Your task to perform on an android device: toggle wifi Image 0: 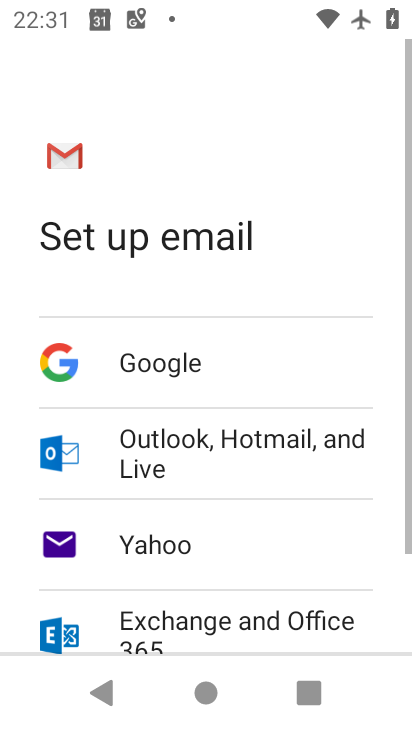
Step 0: press home button
Your task to perform on an android device: toggle wifi Image 1: 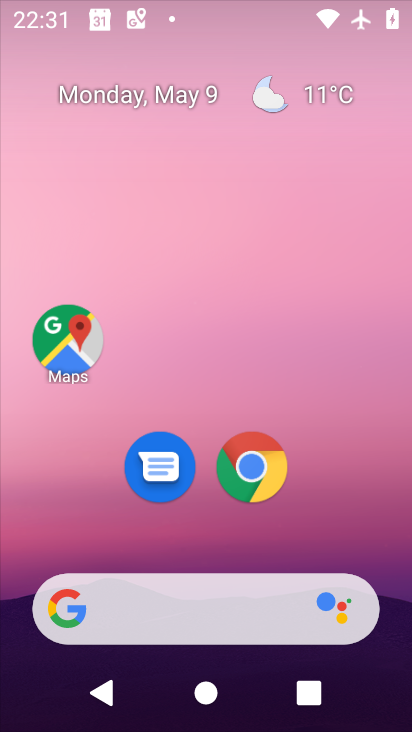
Step 1: drag from (274, 366) to (280, 240)
Your task to perform on an android device: toggle wifi Image 2: 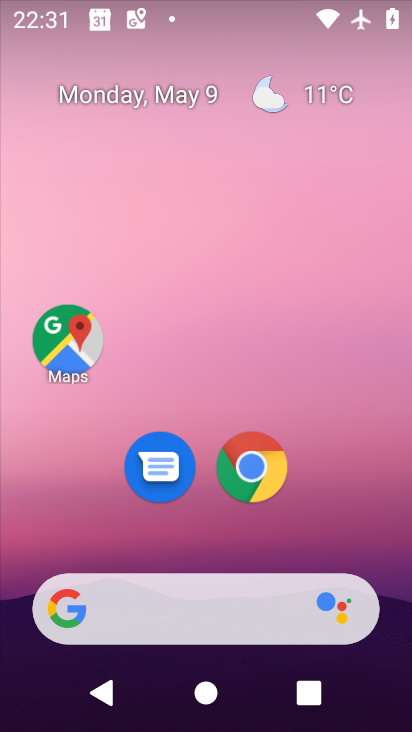
Step 2: drag from (214, 381) to (221, 268)
Your task to perform on an android device: toggle wifi Image 3: 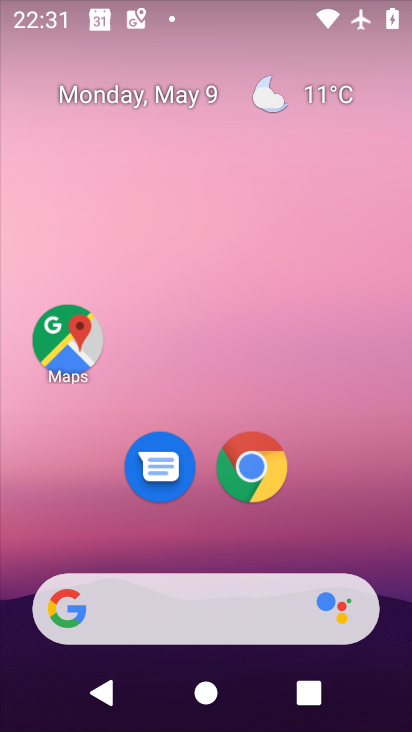
Step 3: drag from (191, 541) to (226, 286)
Your task to perform on an android device: toggle wifi Image 4: 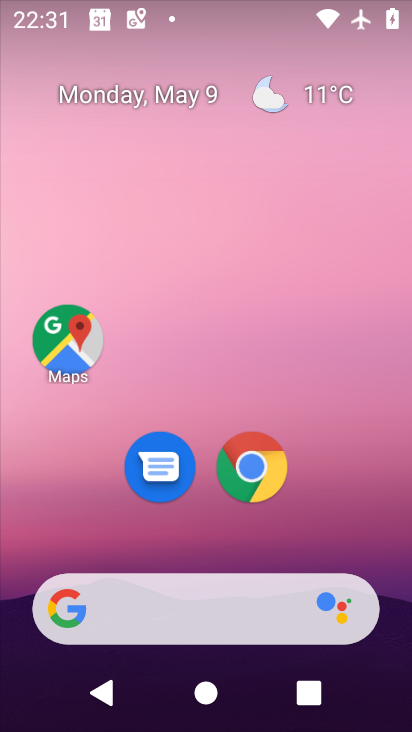
Step 4: drag from (197, 552) to (240, 259)
Your task to perform on an android device: toggle wifi Image 5: 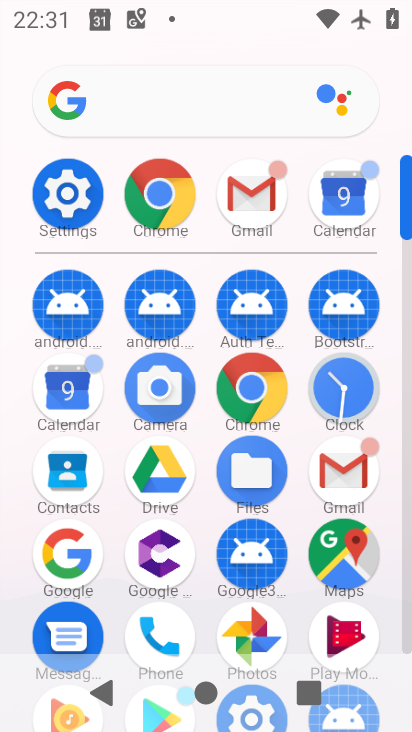
Step 5: click (68, 189)
Your task to perform on an android device: toggle wifi Image 6: 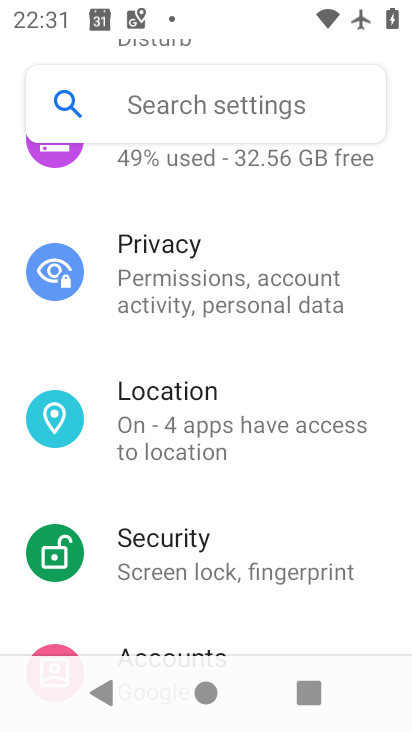
Step 6: drag from (194, 189) to (197, 492)
Your task to perform on an android device: toggle wifi Image 7: 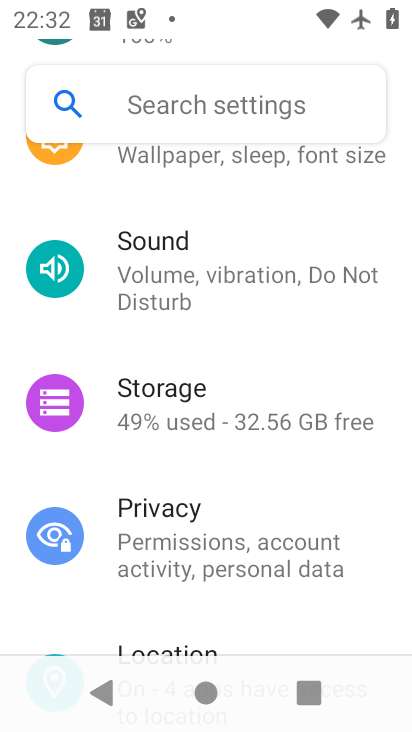
Step 7: drag from (272, 205) to (169, 704)
Your task to perform on an android device: toggle wifi Image 8: 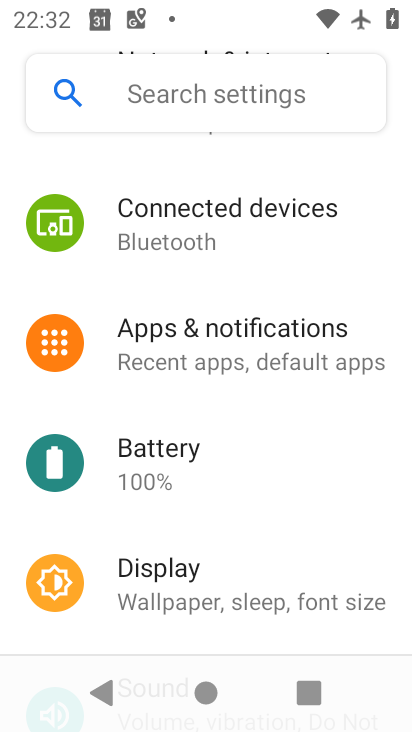
Step 8: drag from (188, 210) to (190, 550)
Your task to perform on an android device: toggle wifi Image 9: 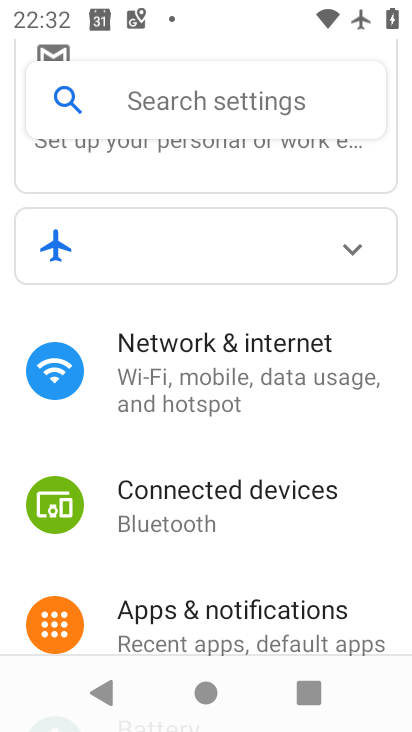
Step 9: click (174, 367)
Your task to perform on an android device: toggle wifi Image 10: 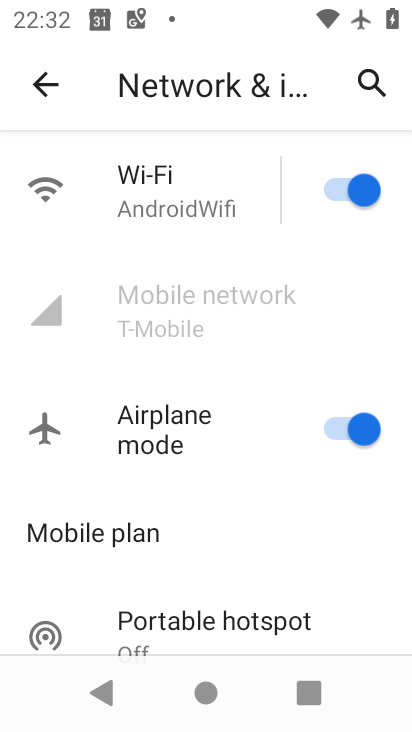
Step 10: drag from (332, 423) to (284, 524)
Your task to perform on an android device: toggle wifi Image 11: 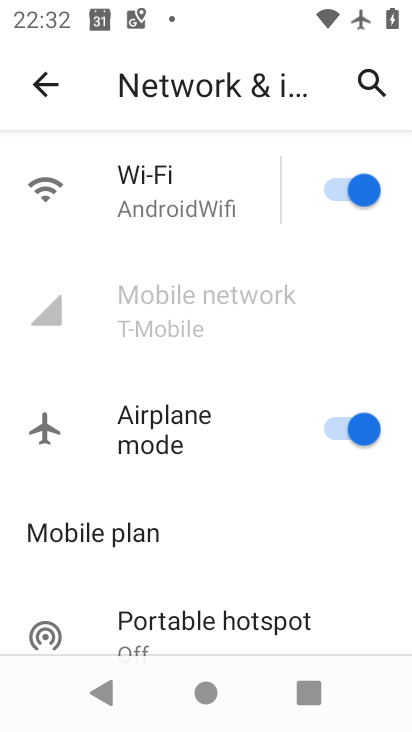
Step 11: click (324, 189)
Your task to perform on an android device: toggle wifi Image 12: 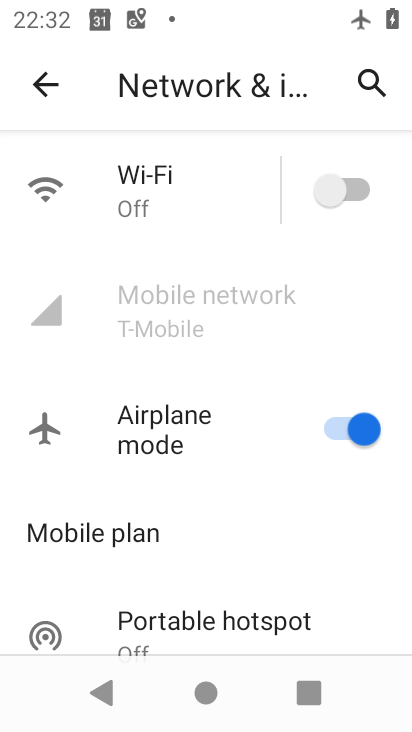
Step 12: task complete